Your task to perform on an android device: move a message to another label in the gmail app Image 0: 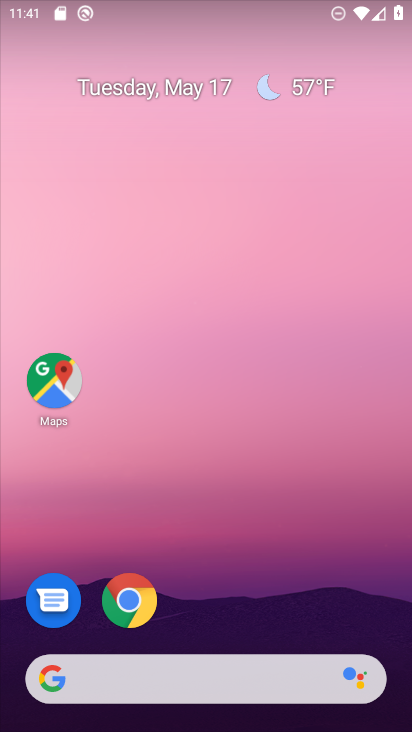
Step 0: drag from (246, 595) to (401, 206)
Your task to perform on an android device: move a message to another label in the gmail app Image 1: 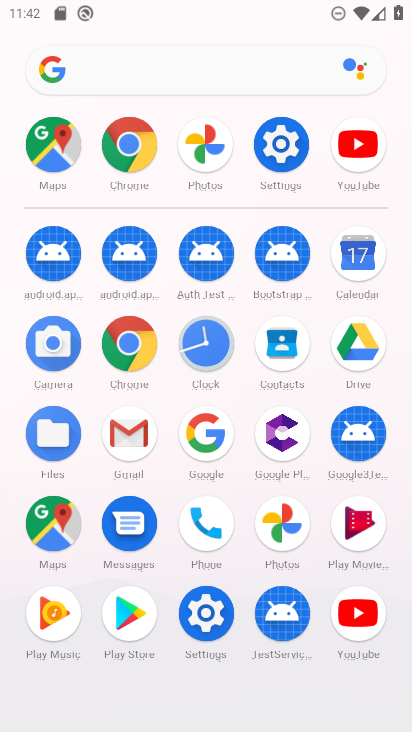
Step 1: click (114, 437)
Your task to perform on an android device: move a message to another label in the gmail app Image 2: 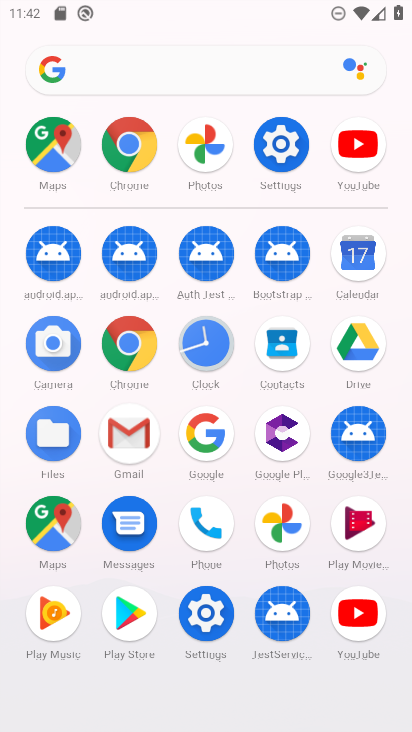
Step 2: click (121, 435)
Your task to perform on an android device: move a message to another label in the gmail app Image 3: 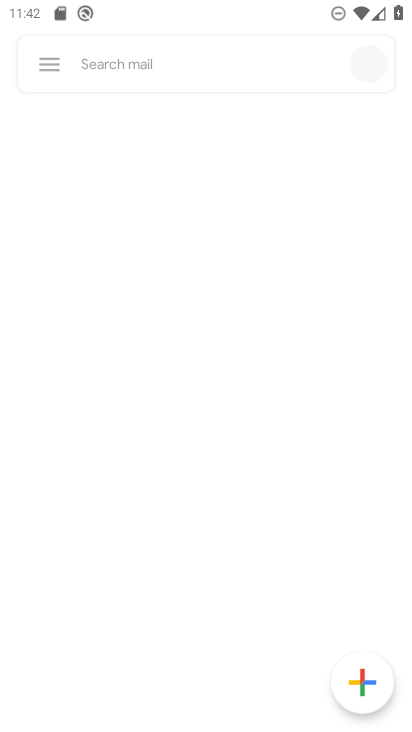
Step 3: click (133, 421)
Your task to perform on an android device: move a message to another label in the gmail app Image 4: 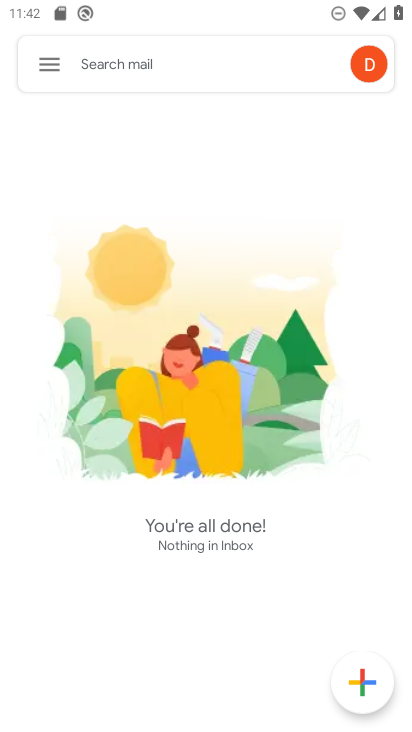
Step 4: click (56, 63)
Your task to perform on an android device: move a message to another label in the gmail app Image 5: 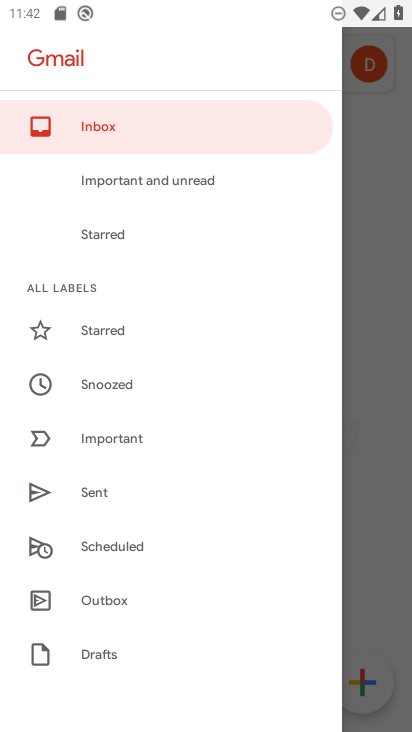
Step 5: click (152, 239)
Your task to perform on an android device: move a message to another label in the gmail app Image 6: 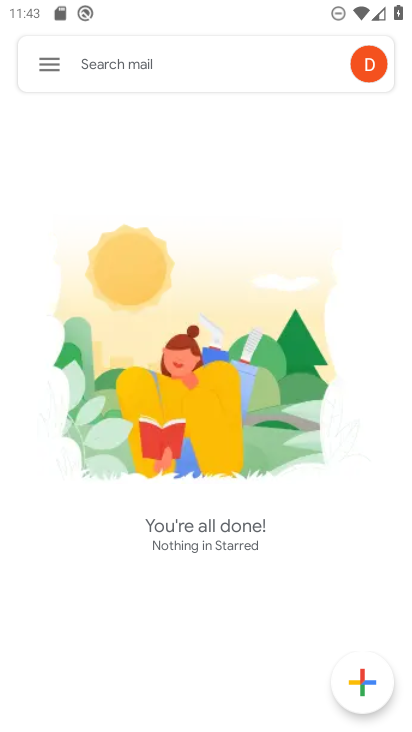
Step 6: click (56, 68)
Your task to perform on an android device: move a message to another label in the gmail app Image 7: 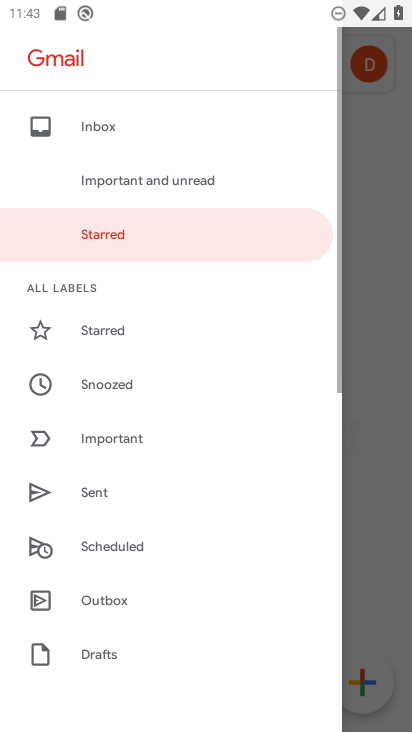
Step 7: click (49, 71)
Your task to perform on an android device: move a message to another label in the gmail app Image 8: 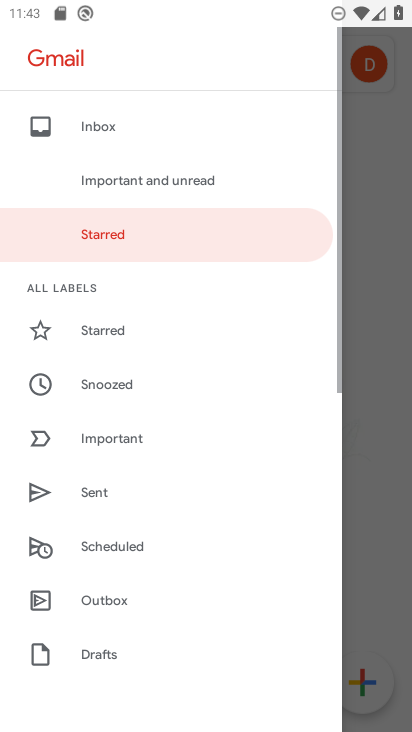
Step 8: click (50, 71)
Your task to perform on an android device: move a message to another label in the gmail app Image 9: 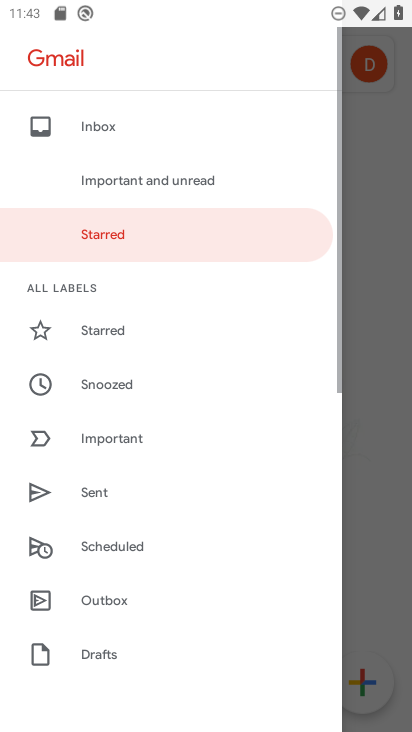
Step 9: click (50, 71)
Your task to perform on an android device: move a message to another label in the gmail app Image 10: 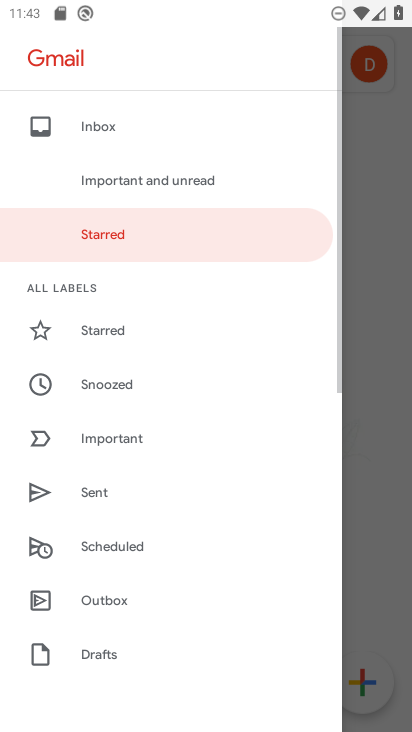
Step 10: click (50, 71)
Your task to perform on an android device: move a message to another label in the gmail app Image 11: 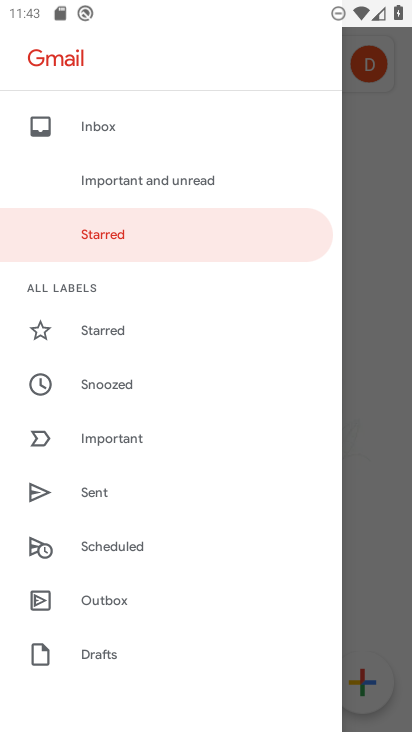
Step 11: drag from (98, 499) to (79, 174)
Your task to perform on an android device: move a message to another label in the gmail app Image 12: 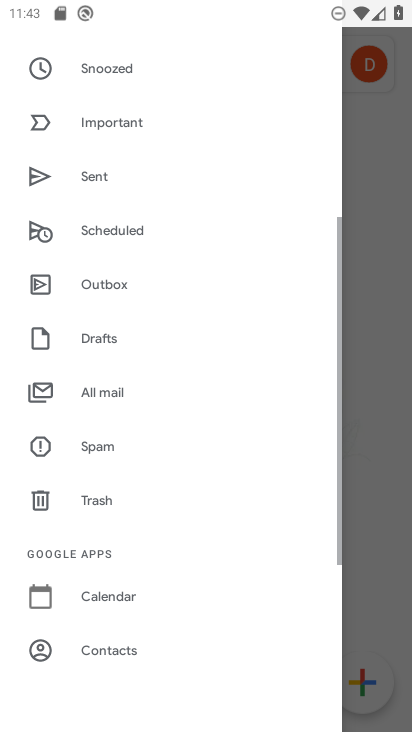
Step 12: drag from (119, 456) to (107, 123)
Your task to perform on an android device: move a message to another label in the gmail app Image 13: 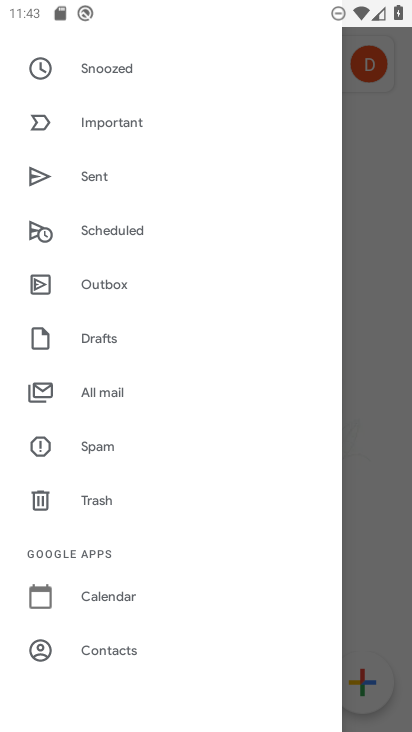
Step 13: click (90, 387)
Your task to perform on an android device: move a message to another label in the gmail app Image 14: 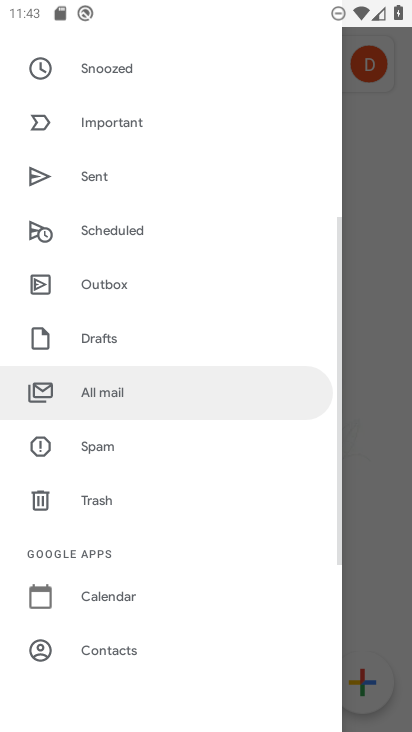
Step 14: click (112, 388)
Your task to perform on an android device: move a message to another label in the gmail app Image 15: 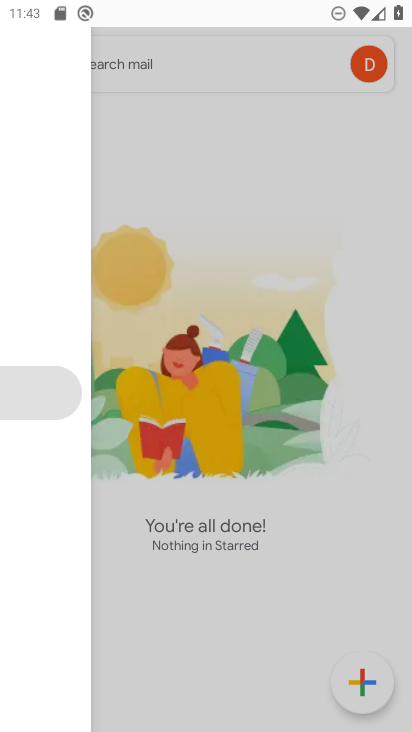
Step 15: click (113, 386)
Your task to perform on an android device: move a message to another label in the gmail app Image 16: 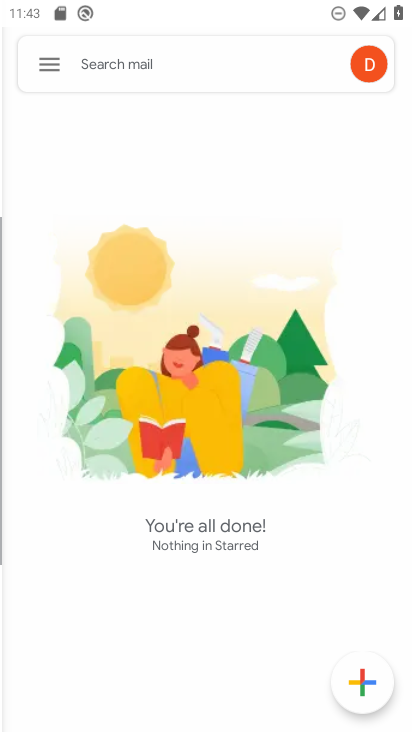
Step 16: click (113, 385)
Your task to perform on an android device: move a message to another label in the gmail app Image 17: 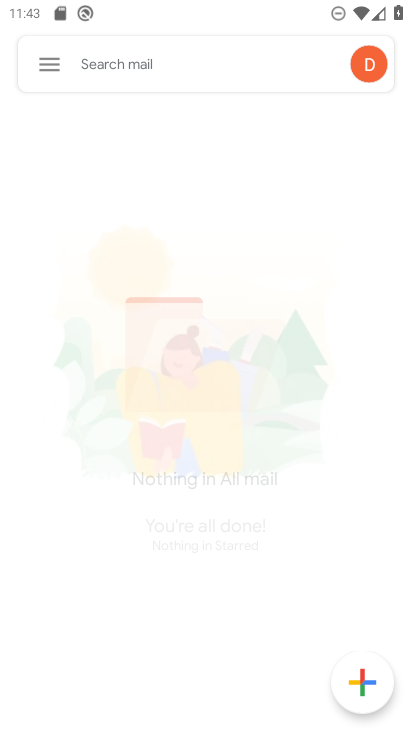
Step 17: click (117, 380)
Your task to perform on an android device: move a message to another label in the gmail app Image 18: 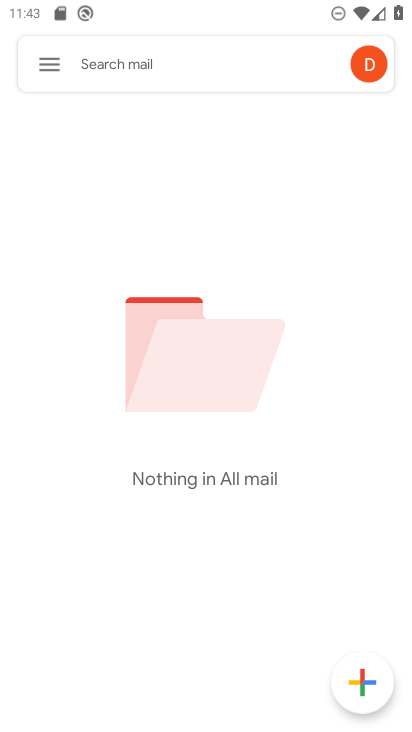
Step 18: click (117, 379)
Your task to perform on an android device: move a message to another label in the gmail app Image 19: 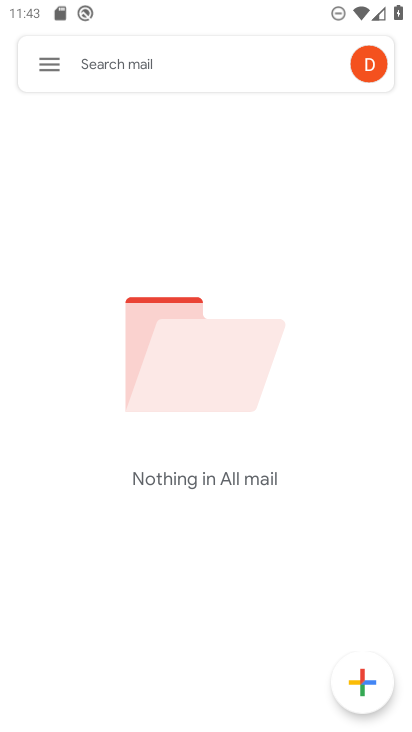
Step 19: click (117, 379)
Your task to perform on an android device: move a message to another label in the gmail app Image 20: 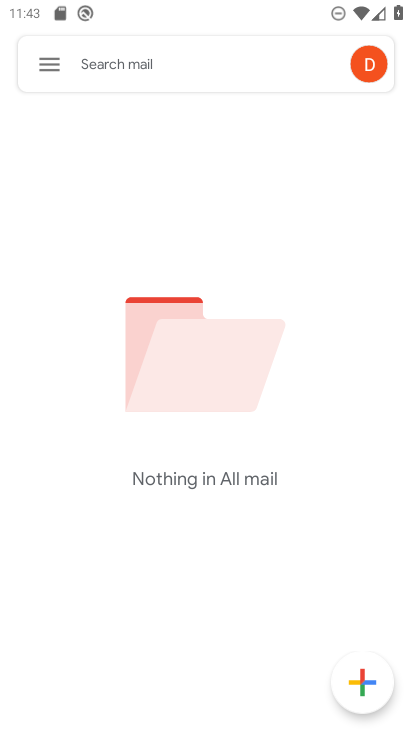
Step 20: click (117, 379)
Your task to perform on an android device: move a message to another label in the gmail app Image 21: 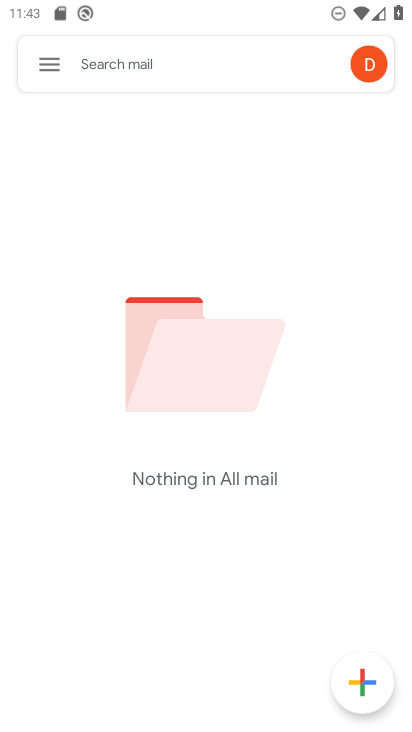
Step 21: click (117, 379)
Your task to perform on an android device: move a message to another label in the gmail app Image 22: 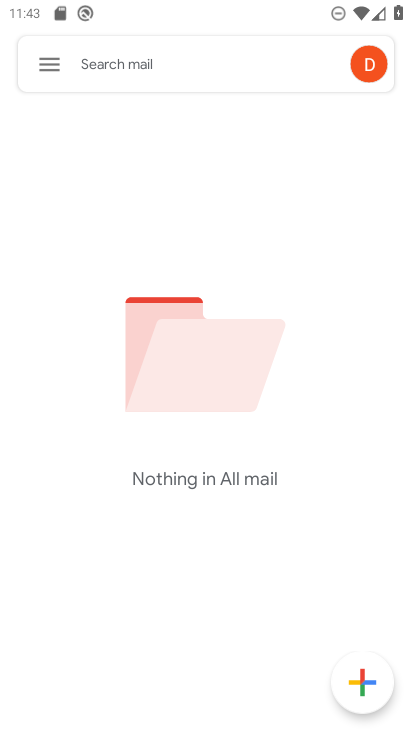
Step 22: click (118, 378)
Your task to perform on an android device: move a message to another label in the gmail app Image 23: 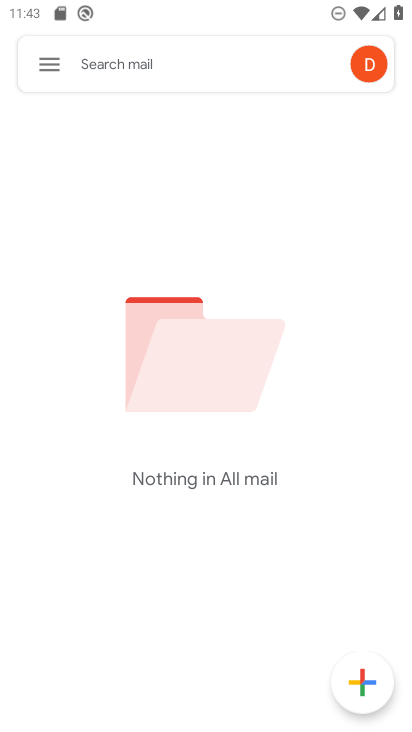
Step 23: task complete